Your task to perform on an android device: open the mobile data screen to see how much data has been used Image 0: 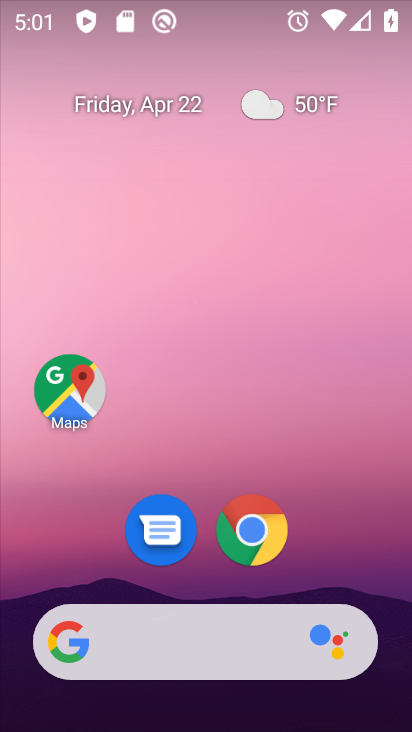
Step 0: drag from (370, 564) to (383, 173)
Your task to perform on an android device: open the mobile data screen to see how much data has been used Image 1: 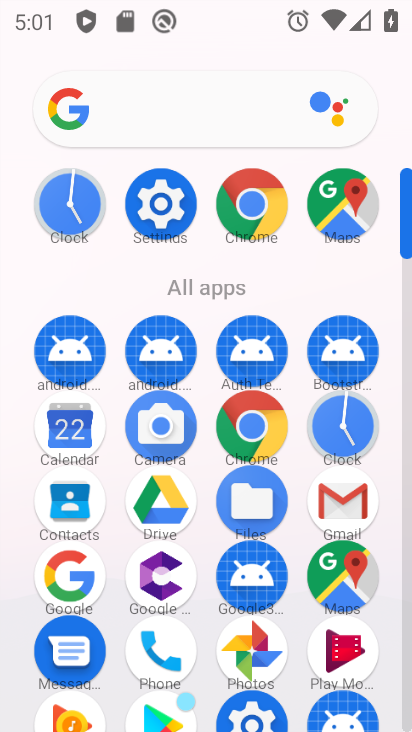
Step 1: drag from (191, 10) to (187, 443)
Your task to perform on an android device: open the mobile data screen to see how much data has been used Image 2: 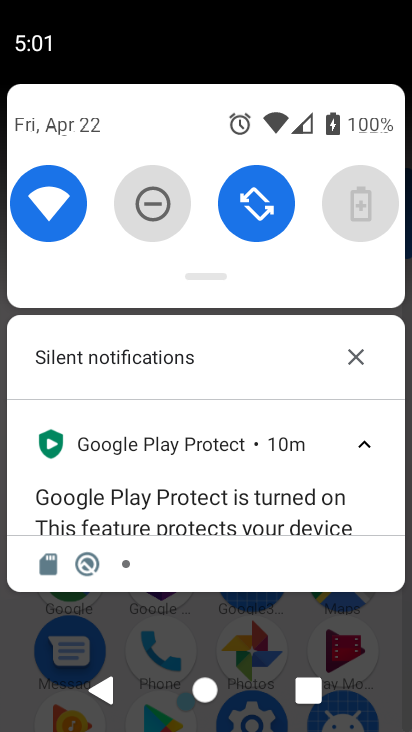
Step 2: drag from (193, 228) to (207, 538)
Your task to perform on an android device: open the mobile data screen to see how much data has been used Image 3: 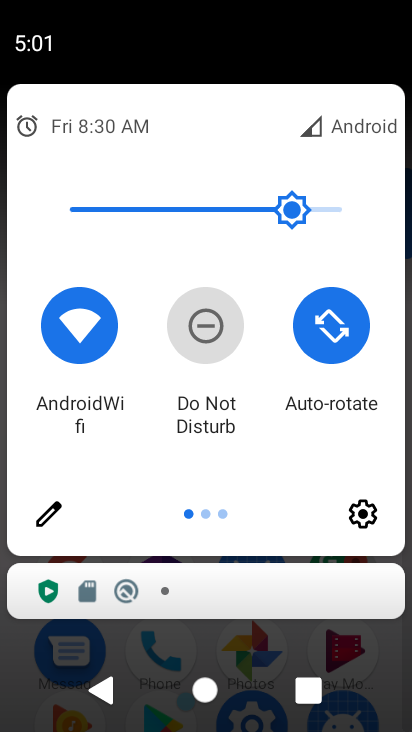
Step 3: drag from (375, 275) to (36, 247)
Your task to perform on an android device: open the mobile data screen to see how much data has been used Image 4: 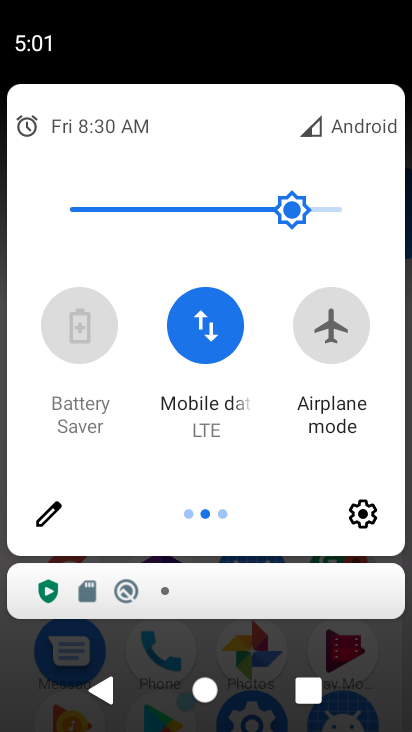
Step 4: click (205, 338)
Your task to perform on an android device: open the mobile data screen to see how much data has been used Image 5: 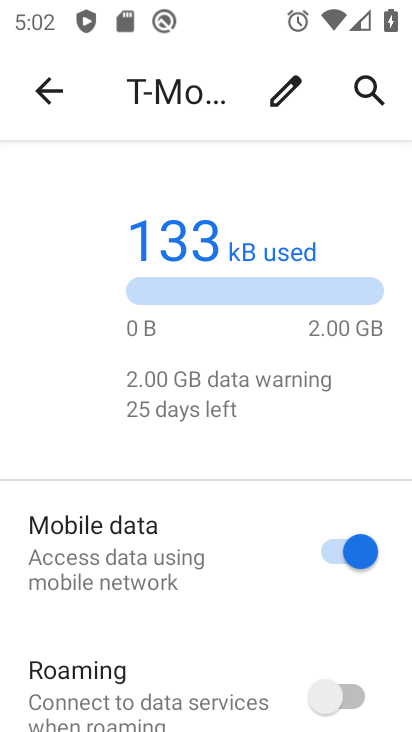
Step 5: task complete